Your task to perform on an android device: Open CNN.com Image 0: 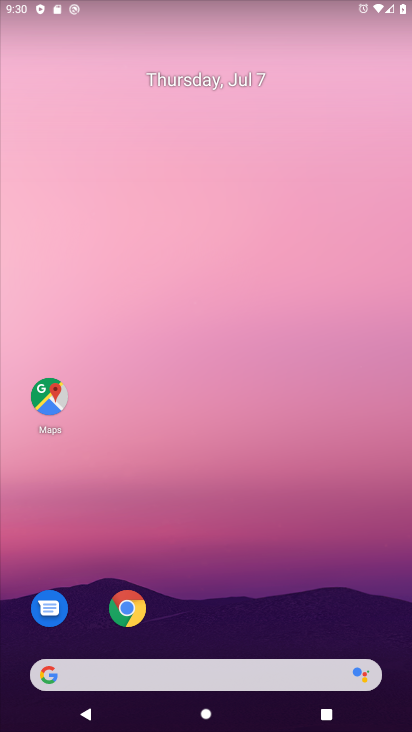
Step 0: click (140, 614)
Your task to perform on an android device: Open CNN.com Image 1: 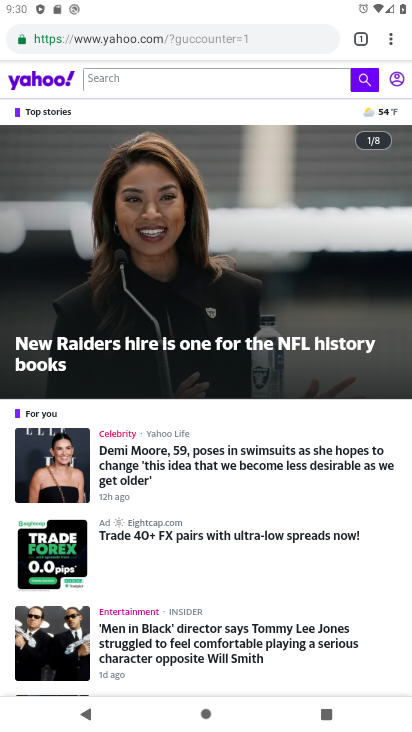
Step 1: click (359, 43)
Your task to perform on an android device: Open CNN.com Image 2: 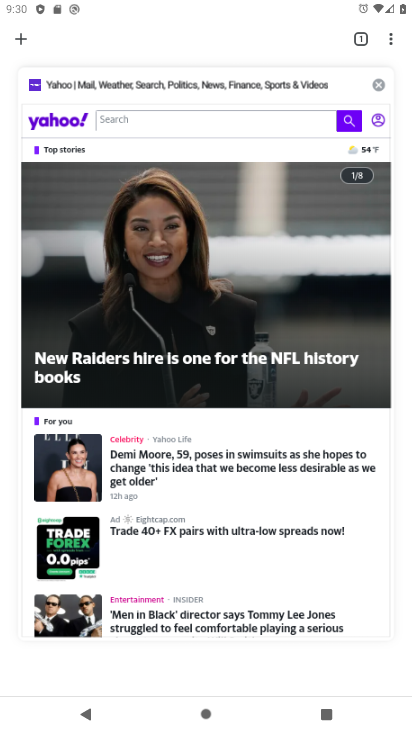
Step 2: click (17, 35)
Your task to perform on an android device: Open CNN.com Image 3: 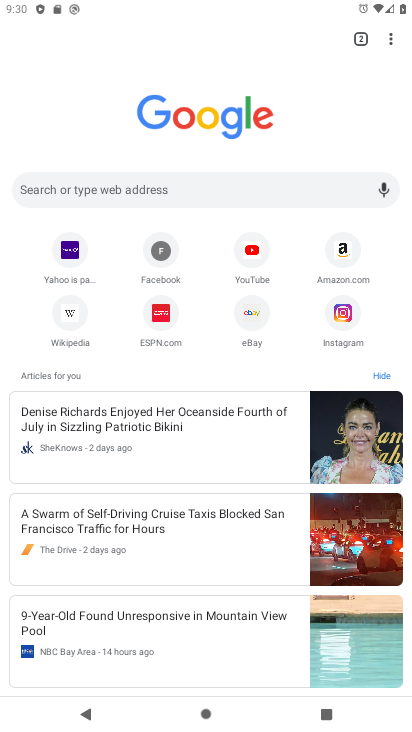
Step 3: click (132, 204)
Your task to perform on an android device: Open CNN.com Image 4: 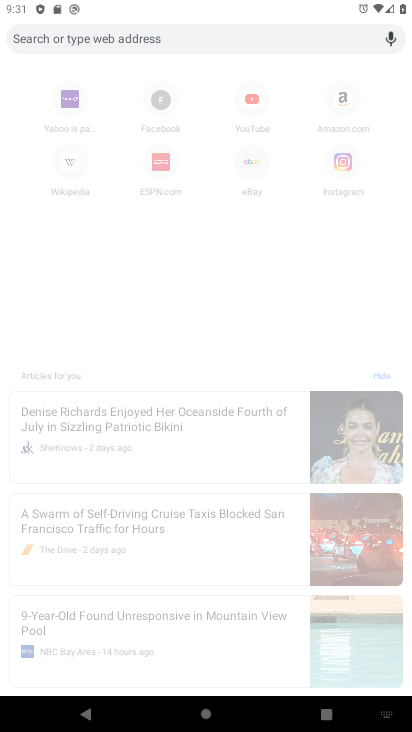
Step 4: type "cnn"
Your task to perform on an android device: Open CNN.com Image 5: 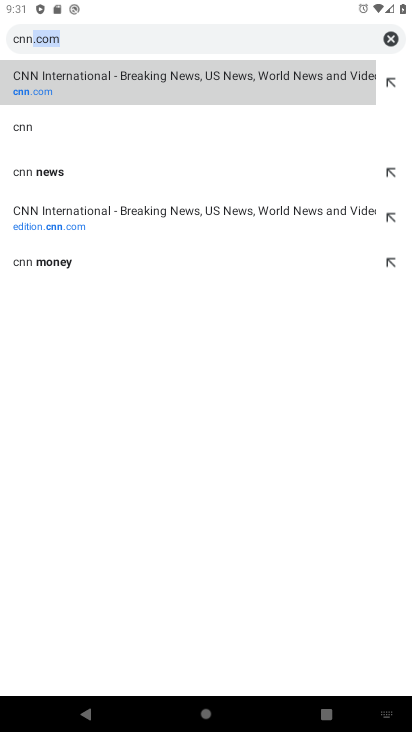
Step 5: click (77, 225)
Your task to perform on an android device: Open CNN.com Image 6: 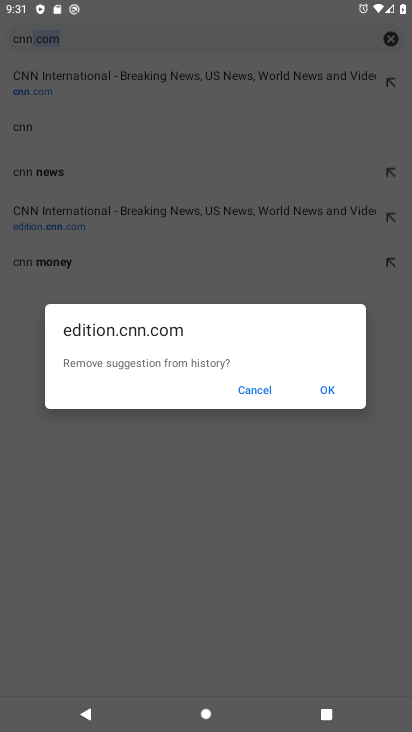
Step 6: click (241, 392)
Your task to perform on an android device: Open CNN.com Image 7: 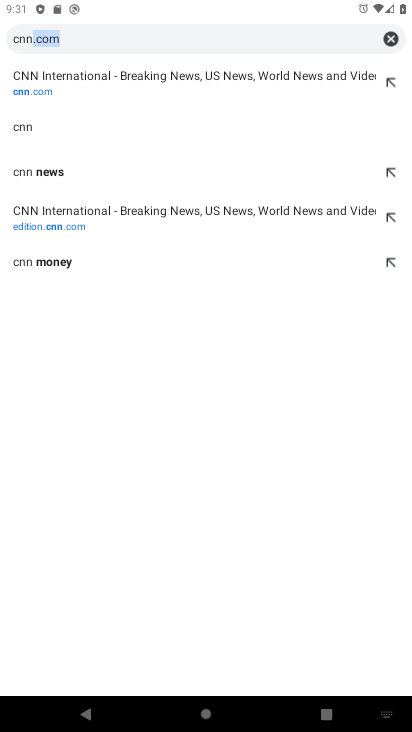
Step 7: click (102, 90)
Your task to perform on an android device: Open CNN.com Image 8: 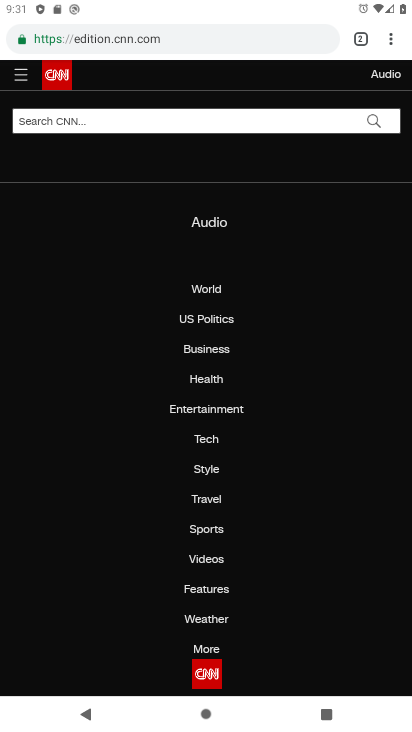
Step 8: task complete